Your task to perform on an android device: Clear the cart on walmart. Add amazon basics triple a to the cart on walmart Image 0: 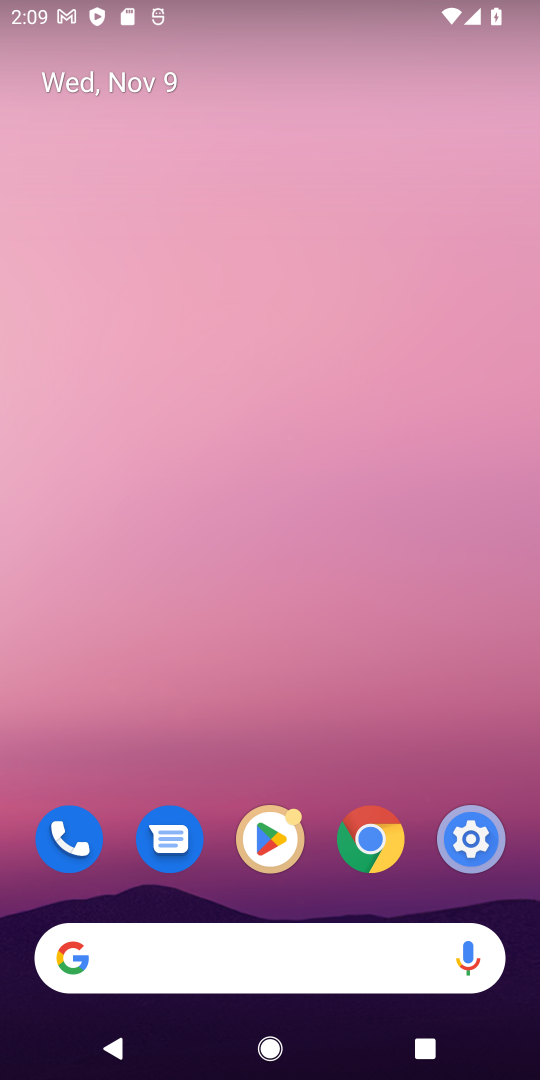
Step 0: click (304, 930)
Your task to perform on an android device: Clear the cart on walmart. Add amazon basics triple a to the cart on walmart Image 1: 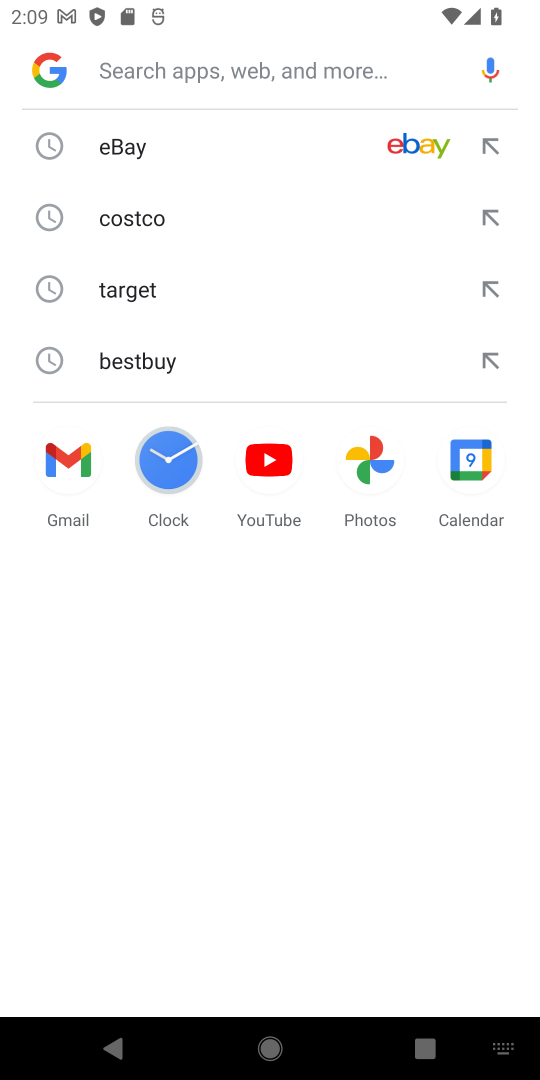
Step 1: type "walmart"
Your task to perform on an android device: Clear the cart on walmart. Add amazon basics triple a to the cart on walmart Image 2: 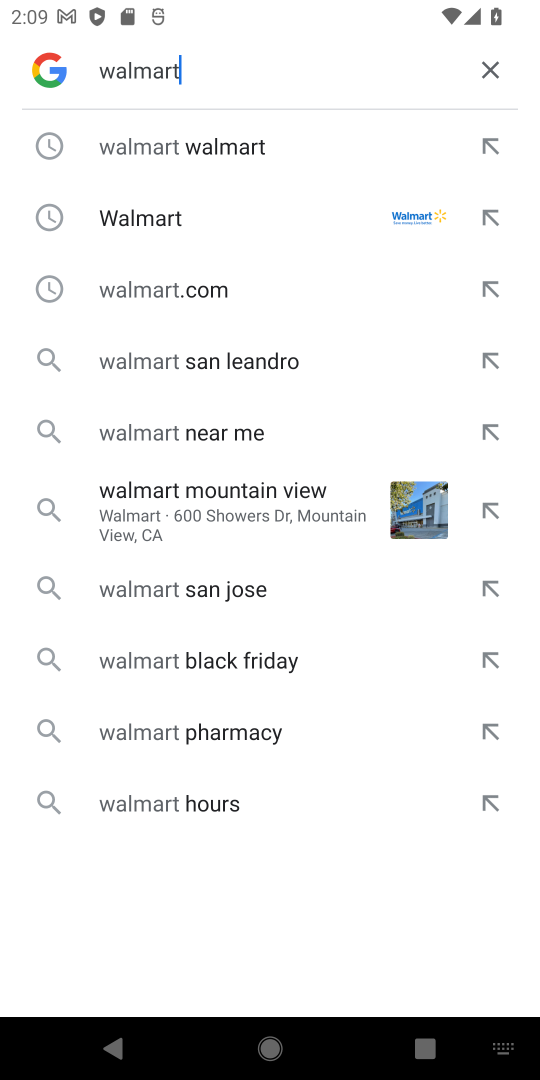
Step 2: click (319, 201)
Your task to perform on an android device: Clear the cart on walmart. Add amazon basics triple a to the cart on walmart Image 3: 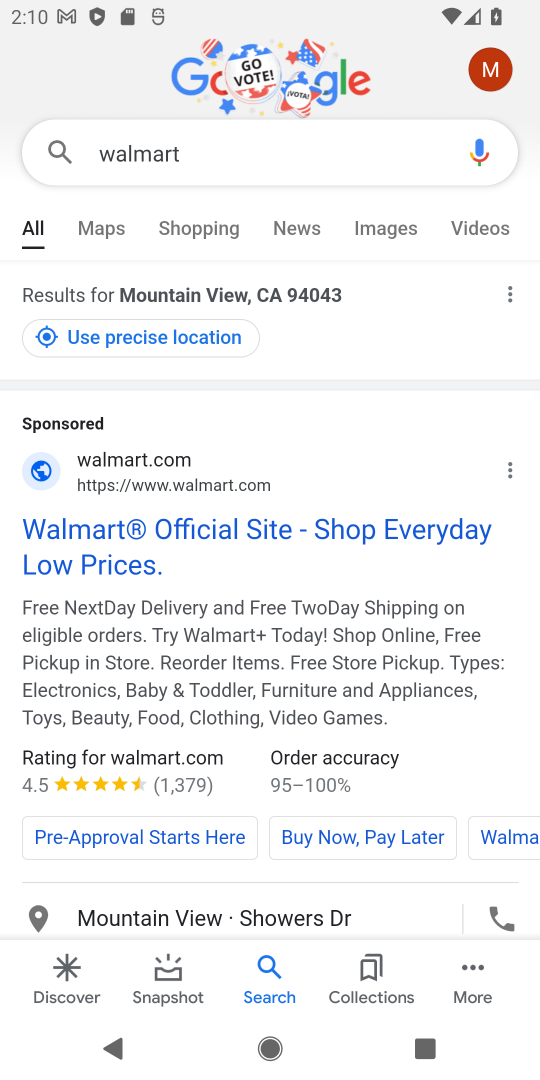
Step 3: click (303, 564)
Your task to perform on an android device: Clear the cart on walmart. Add amazon basics triple a to the cart on walmart Image 4: 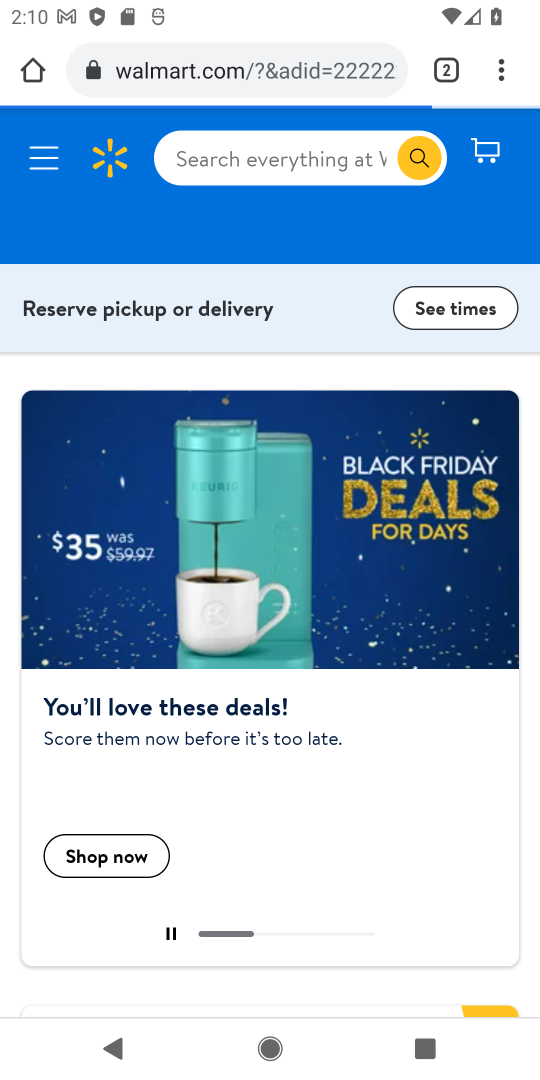
Step 4: task complete